Your task to perform on an android device: set default search engine in the chrome app Image 0: 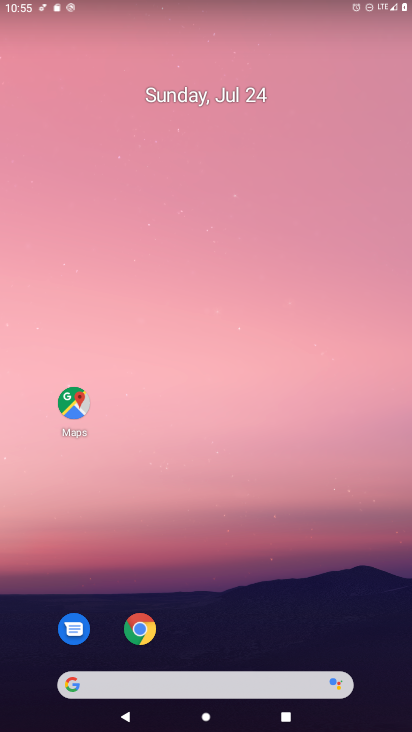
Step 0: drag from (361, 623) to (161, 1)
Your task to perform on an android device: set default search engine in the chrome app Image 1: 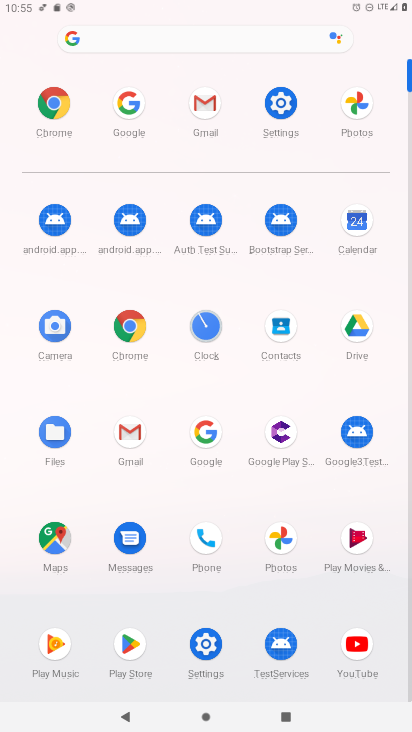
Step 1: click (126, 340)
Your task to perform on an android device: set default search engine in the chrome app Image 2: 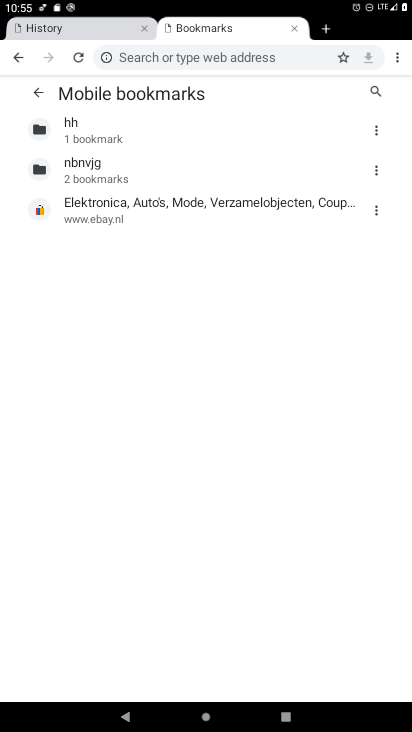
Step 2: click (400, 50)
Your task to perform on an android device: set default search engine in the chrome app Image 3: 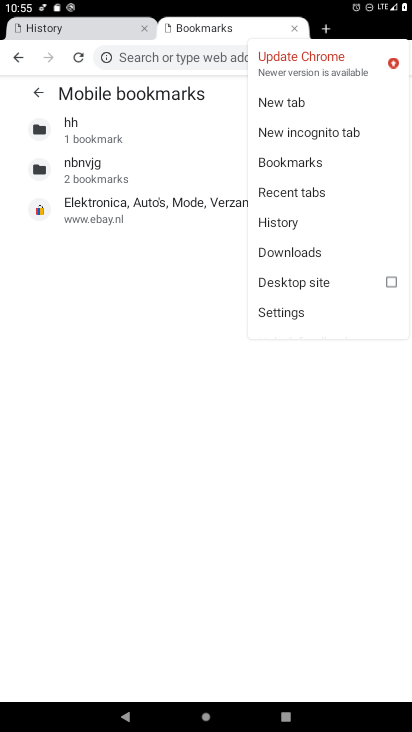
Step 3: click (287, 309)
Your task to perform on an android device: set default search engine in the chrome app Image 4: 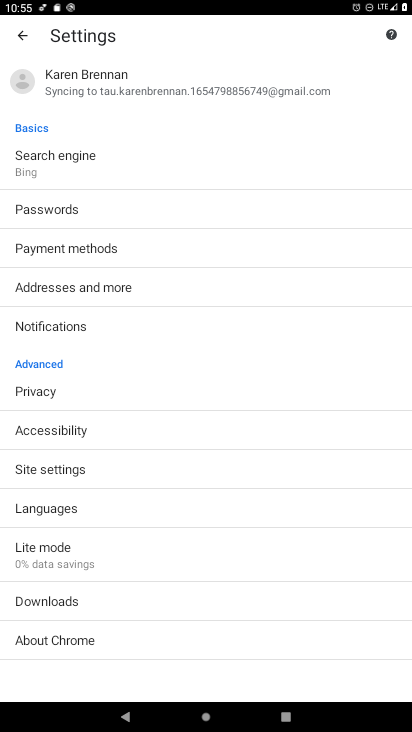
Step 4: click (85, 163)
Your task to perform on an android device: set default search engine in the chrome app Image 5: 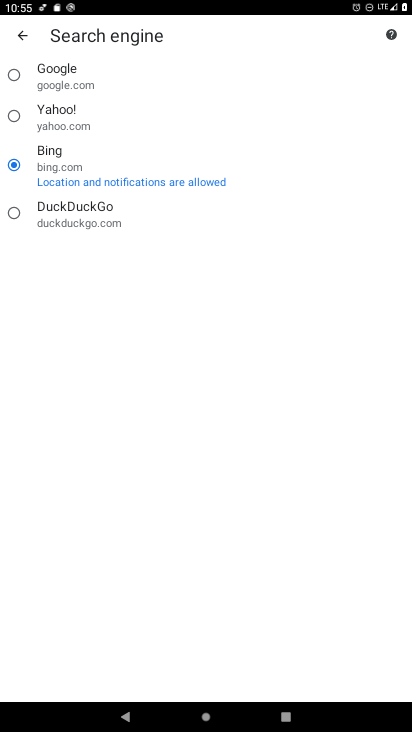
Step 5: click (86, 63)
Your task to perform on an android device: set default search engine in the chrome app Image 6: 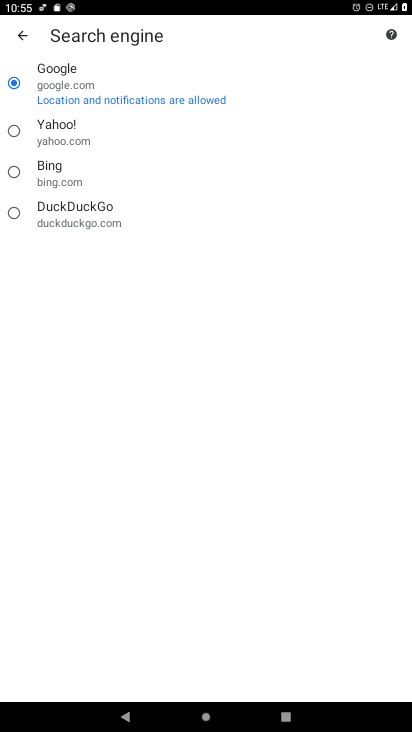
Step 6: task complete